Your task to perform on an android device: Open Google Chrome and click the shortcut for Amazon.com Image 0: 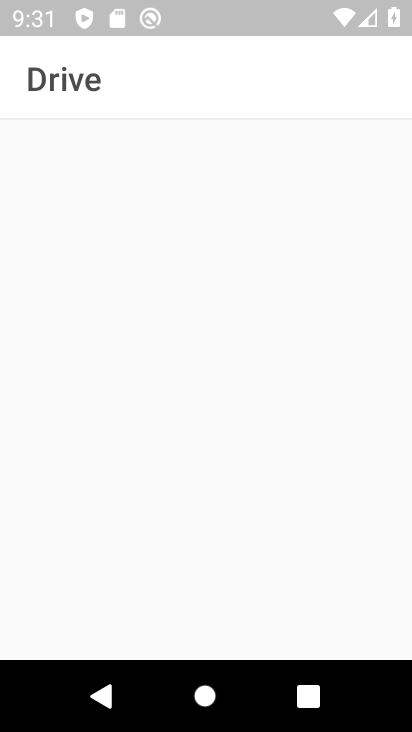
Step 0: press back button
Your task to perform on an android device: Open Google Chrome and click the shortcut for Amazon.com Image 1: 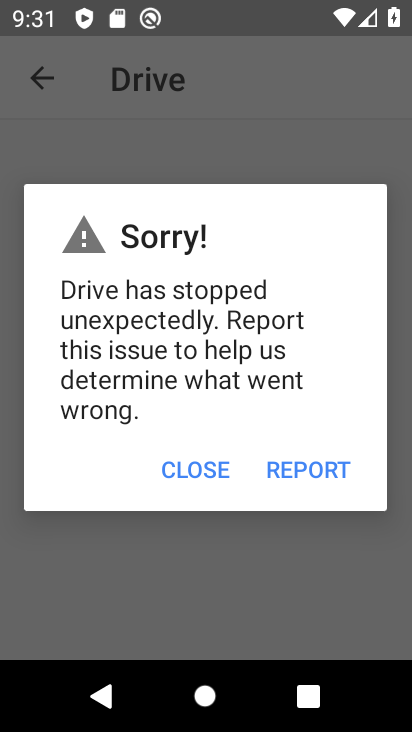
Step 1: press back button
Your task to perform on an android device: Open Google Chrome and click the shortcut for Amazon.com Image 2: 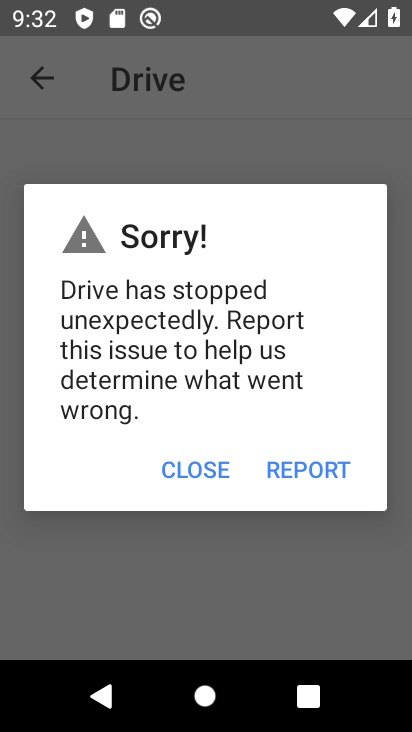
Step 2: press home button
Your task to perform on an android device: Open Google Chrome and click the shortcut for Amazon.com Image 3: 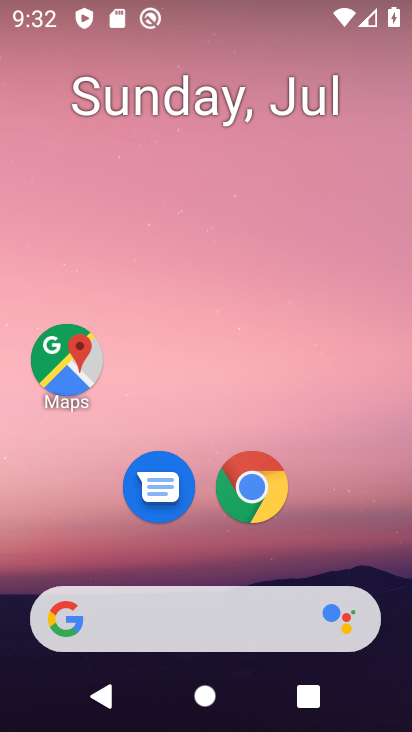
Step 3: click (268, 491)
Your task to perform on an android device: Open Google Chrome and click the shortcut for Amazon.com Image 4: 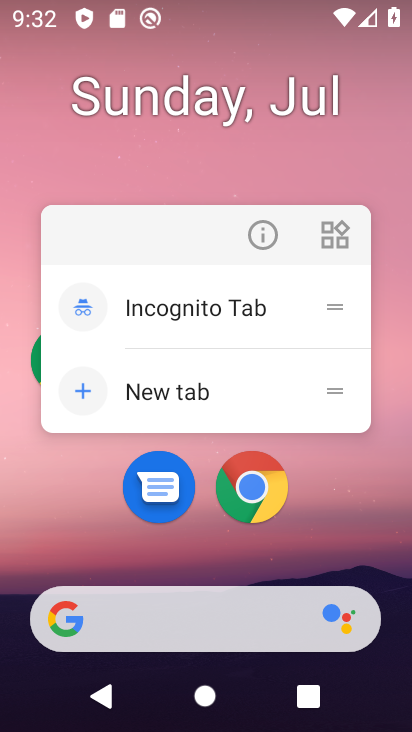
Step 4: click (261, 486)
Your task to perform on an android device: Open Google Chrome and click the shortcut for Amazon.com Image 5: 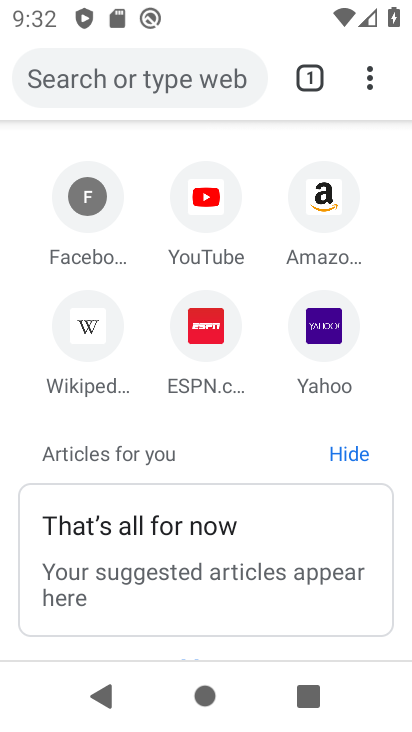
Step 5: click (314, 198)
Your task to perform on an android device: Open Google Chrome and click the shortcut for Amazon.com Image 6: 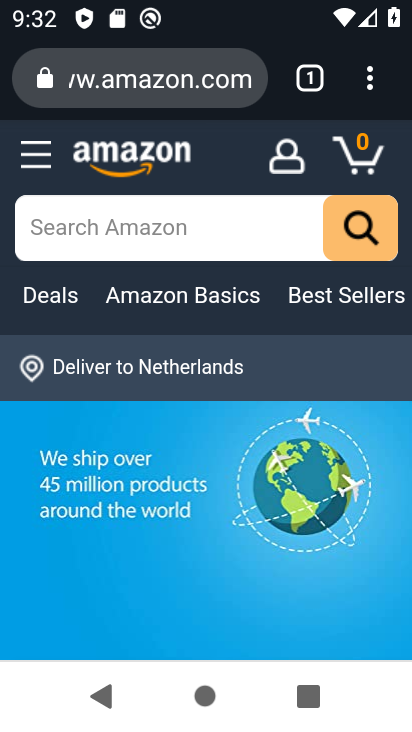
Step 6: task complete